Your task to perform on an android device: change notification settings in the gmail app Image 0: 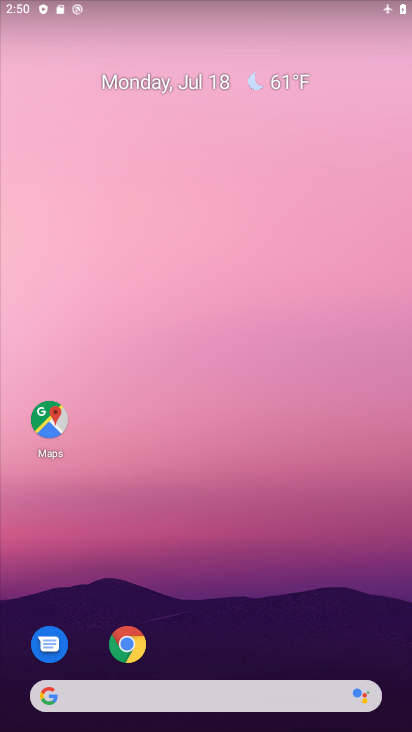
Step 0: drag from (352, 630) to (141, 2)
Your task to perform on an android device: change notification settings in the gmail app Image 1: 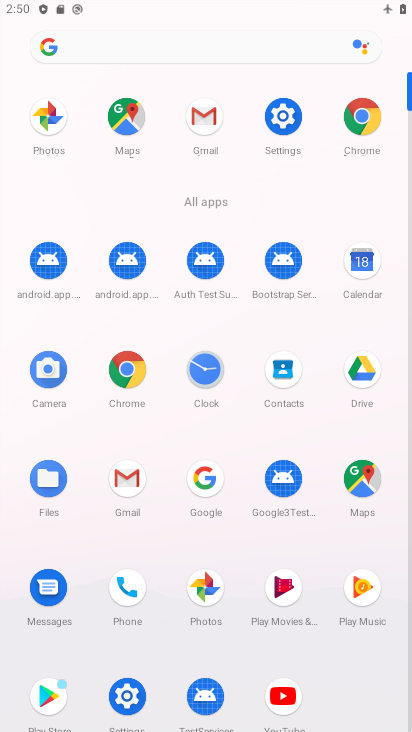
Step 1: click (196, 109)
Your task to perform on an android device: change notification settings in the gmail app Image 2: 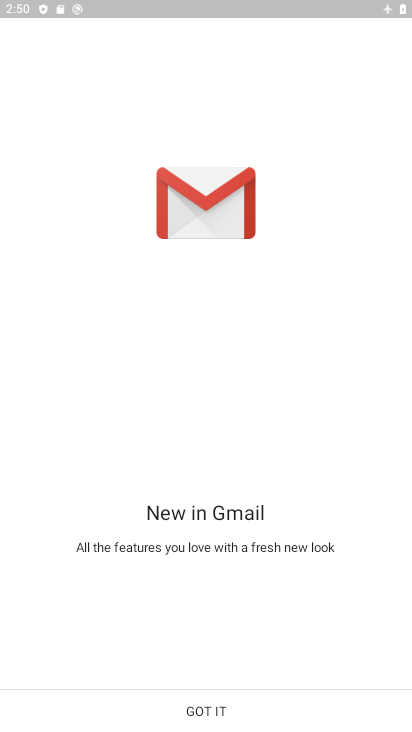
Step 2: click (207, 712)
Your task to perform on an android device: change notification settings in the gmail app Image 3: 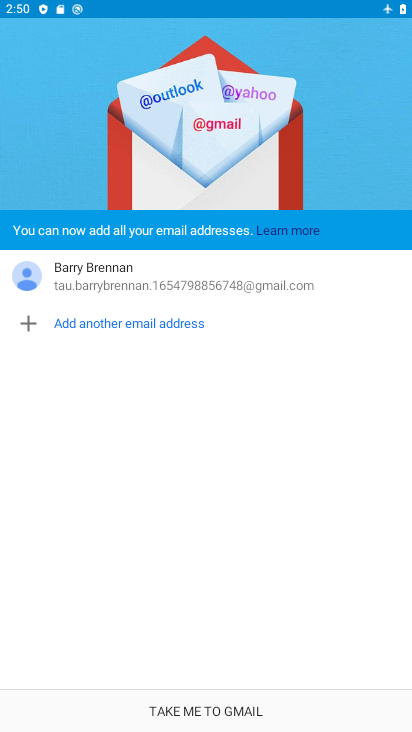
Step 3: click (207, 713)
Your task to perform on an android device: change notification settings in the gmail app Image 4: 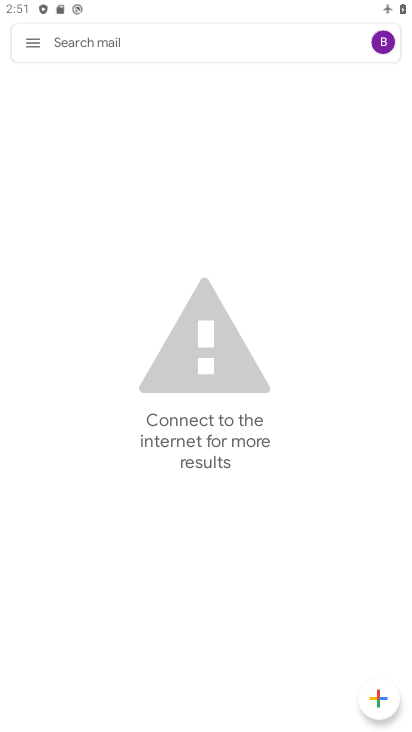
Step 4: click (23, 44)
Your task to perform on an android device: change notification settings in the gmail app Image 5: 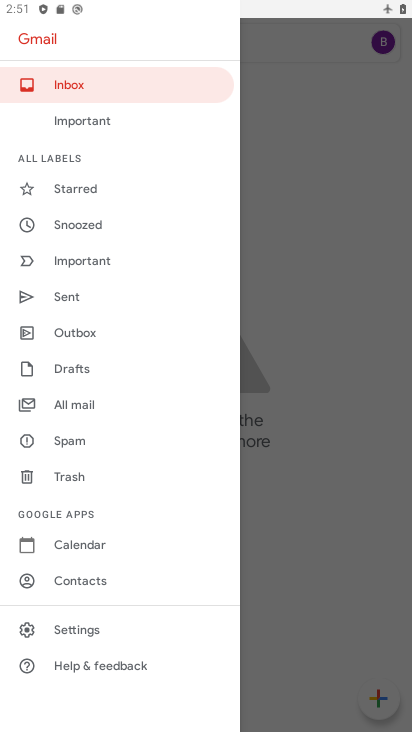
Step 5: click (89, 626)
Your task to perform on an android device: change notification settings in the gmail app Image 6: 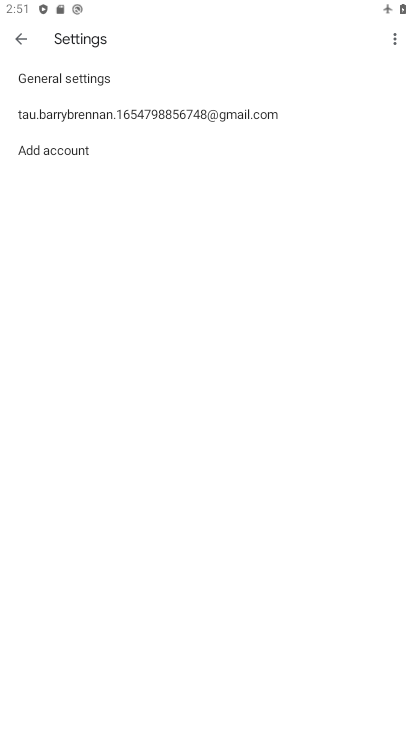
Step 6: click (106, 110)
Your task to perform on an android device: change notification settings in the gmail app Image 7: 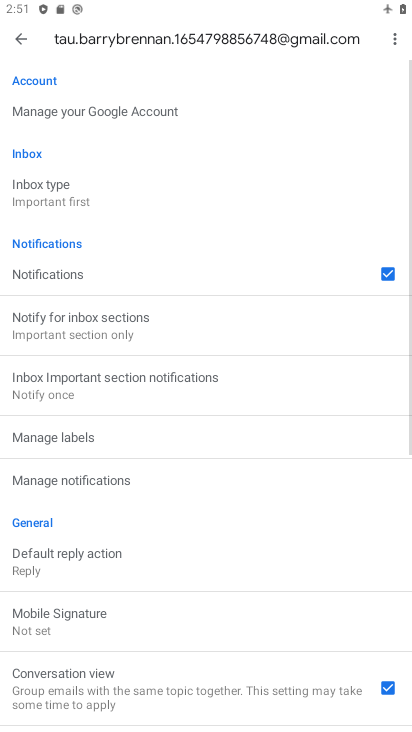
Step 7: click (128, 276)
Your task to perform on an android device: change notification settings in the gmail app Image 8: 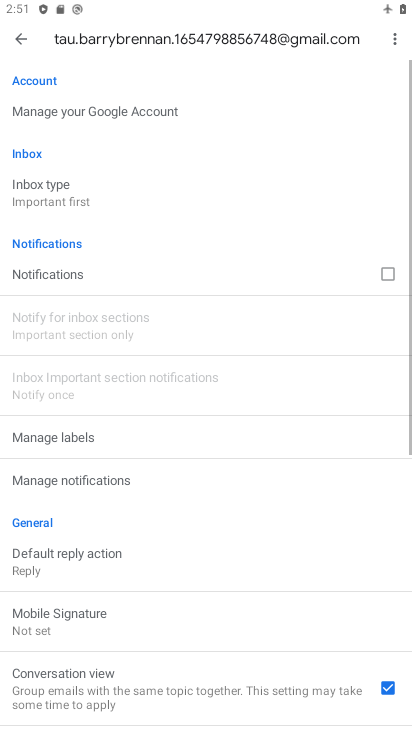
Step 8: click (168, 469)
Your task to perform on an android device: change notification settings in the gmail app Image 9: 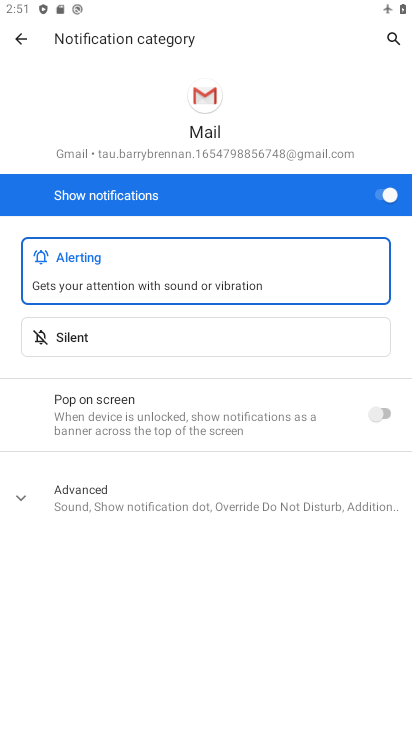
Step 9: click (203, 417)
Your task to perform on an android device: change notification settings in the gmail app Image 10: 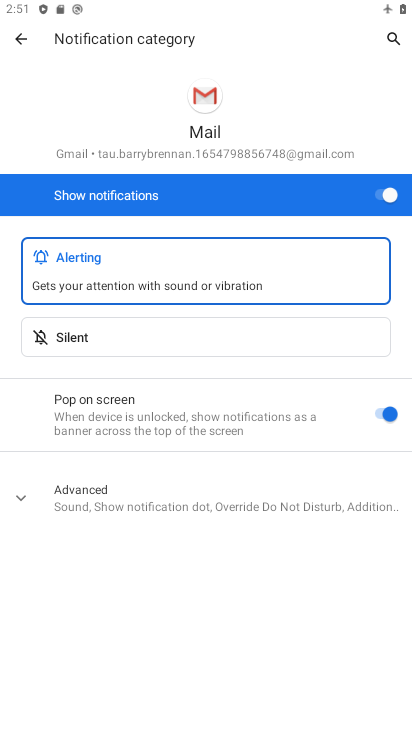
Step 10: task complete